Your task to perform on an android device: open wifi settings Image 0: 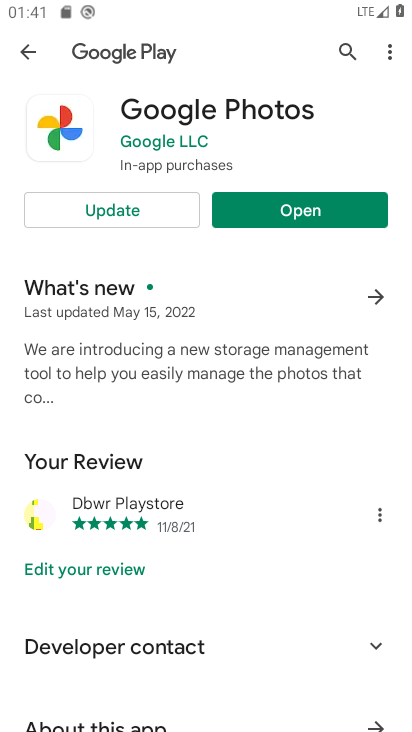
Step 0: press home button
Your task to perform on an android device: open wifi settings Image 1: 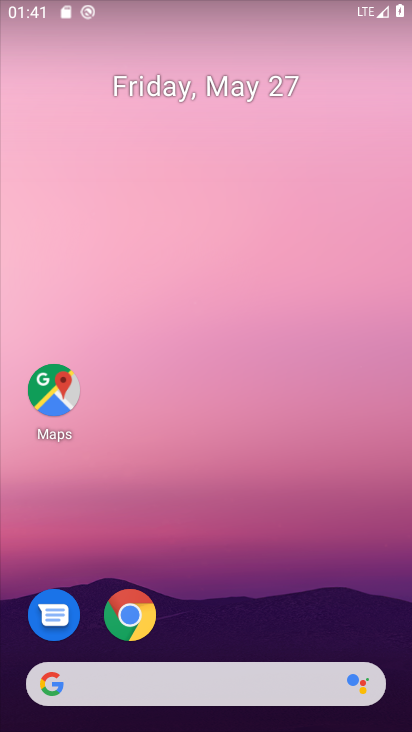
Step 1: drag from (370, 622) to (388, 70)
Your task to perform on an android device: open wifi settings Image 2: 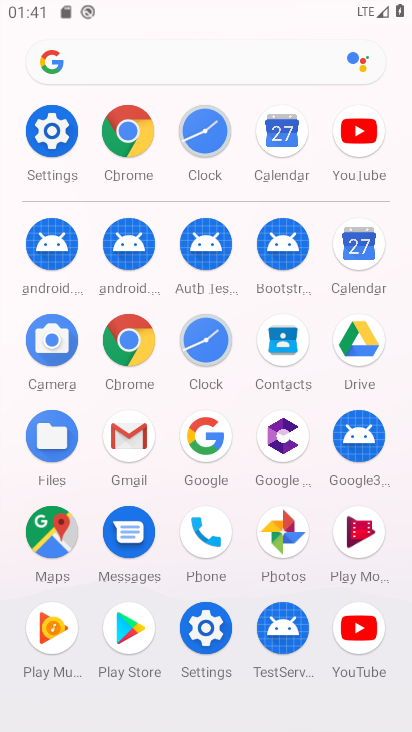
Step 2: click (219, 623)
Your task to perform on an android device: open wifi settings Image 3: 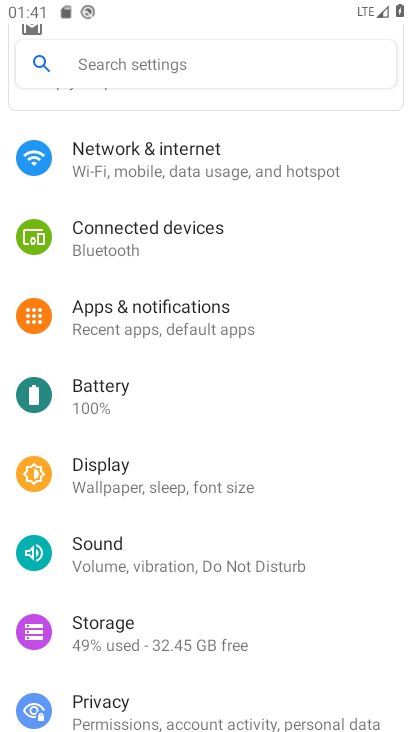
Step 3: drag from (363, 557) to (359, 475)
Your task to perform on an android device: open wifi settings Image 4: 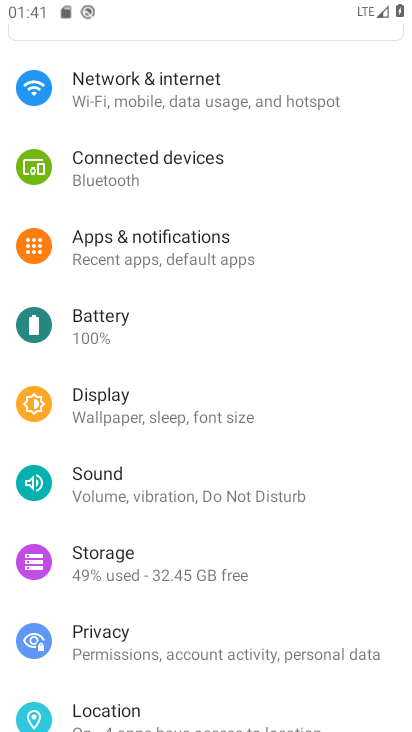
Step 4: drag from (358, 609) to (362, 527)
Your task to perform on an android device: open wifi settings Image 5: 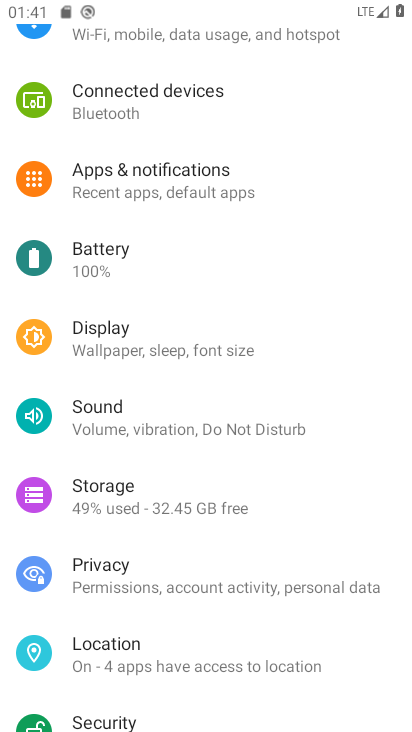
Step 5: drag from (357, 646) to (366, 522)
Your task to perform on an android device: open wifi settings Image 6: 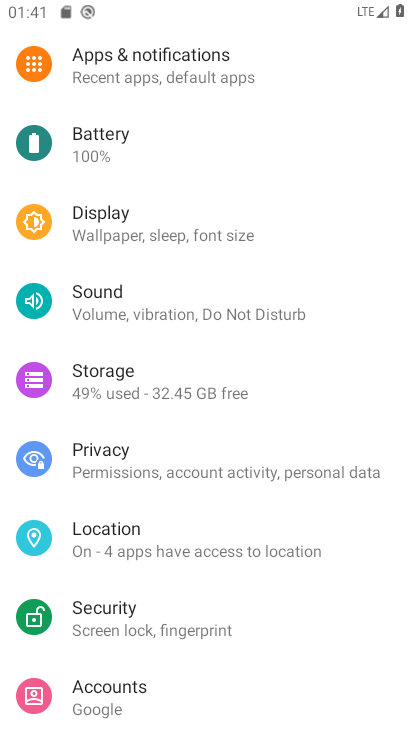
Step 6: drag from (360, 647) to (371, 538)
Your task to perform on an android device: open wifi settings Image 7: 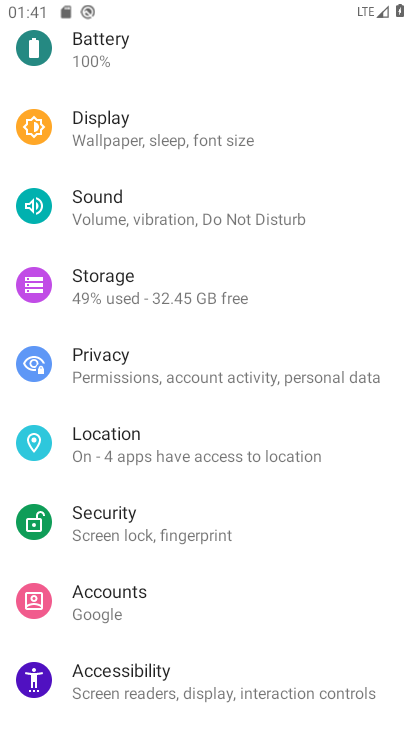
Step 7: drag from (352, 639) to (352, 544)
Your task to perform on an android device: open wifi settings Image 8: 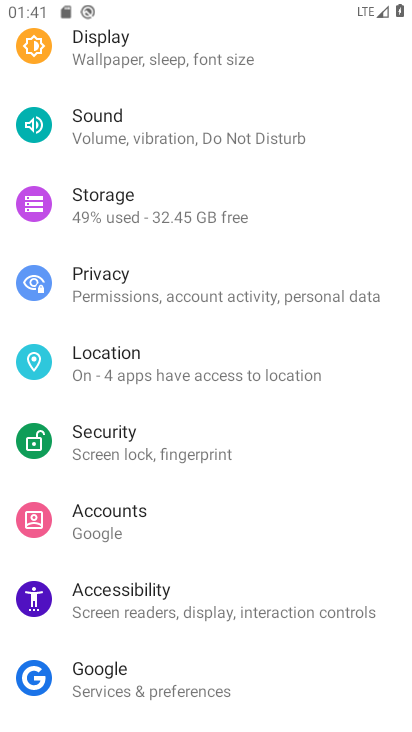
Step 8: drag from (352, 659) to (354, 554)
Your task to perform on an android device: open wifi settings Image 9: 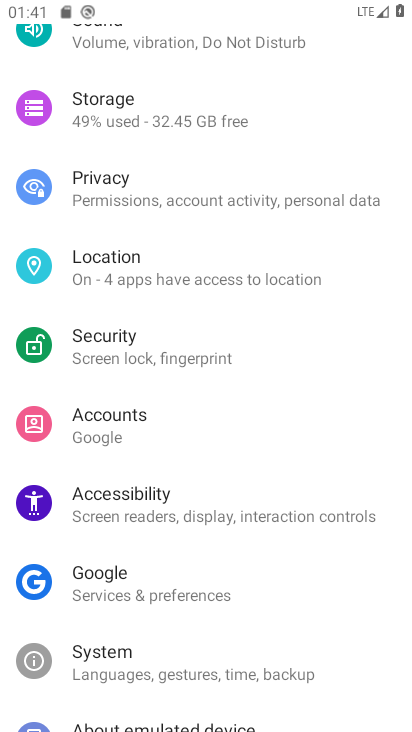
Step 9: drag from (359, 657) to (366, 517)
Your task to perform on an android device: open wifi settings Image 10: 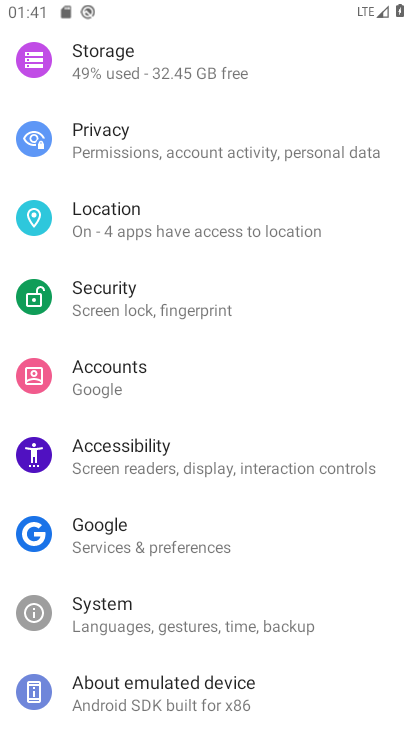
Step 10: drag from (366, 501) to (368, 594)
Your task to perform on an android device: open wifi settings Image 11: 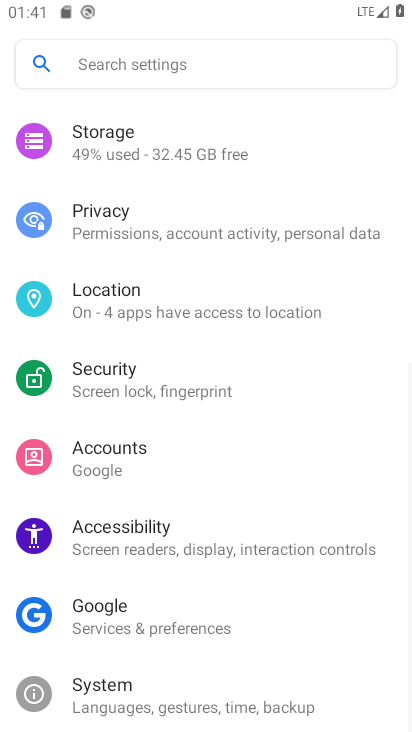
Step 11: drag from (364, 415) to (363, 522)
Your task to perform on an android device: open wifi settings Image 12: 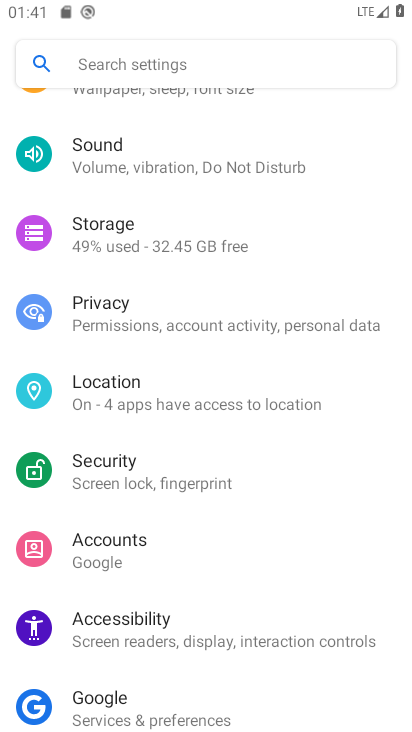
Step 12: drag from (362, 407) to (375, 502)
Your task to perform on an android device: open wifi settings Image 13: 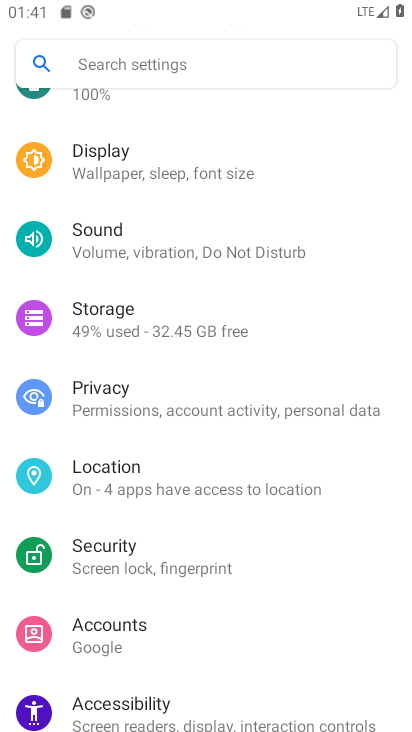
Step 13: drag from (375, 371) to (378, 467)
Your task to perform on an android device: open wifi settings Image 14: 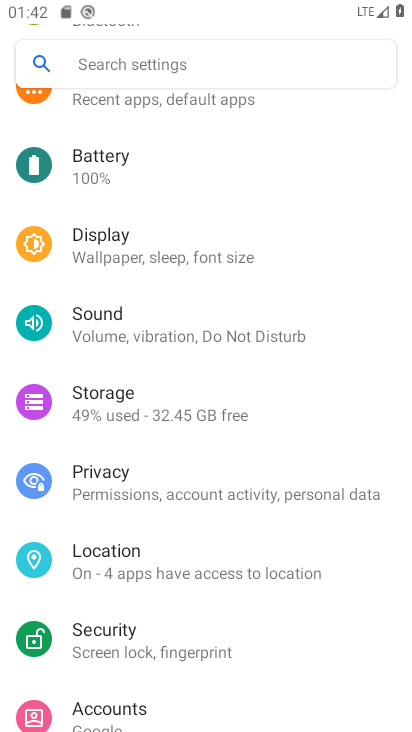
Step 14: drag from (371, 341) to (368, 446)
Your task to perform on an android device: open wifi settings Image 15: 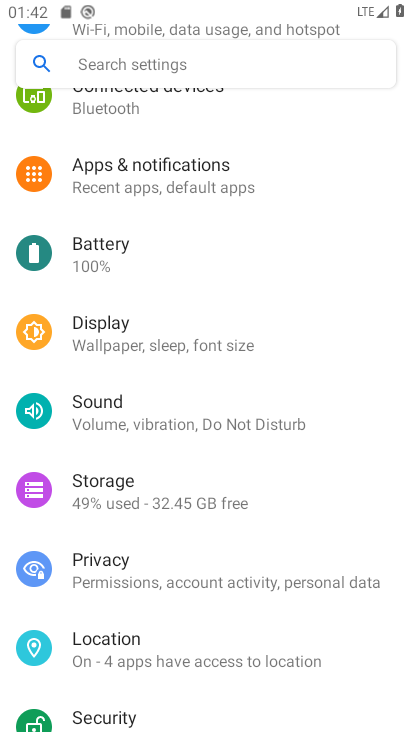
Step 15: drag from (355, 355) to (364, 430)
Your task to perform on an android device: open wifi settings Image 16: 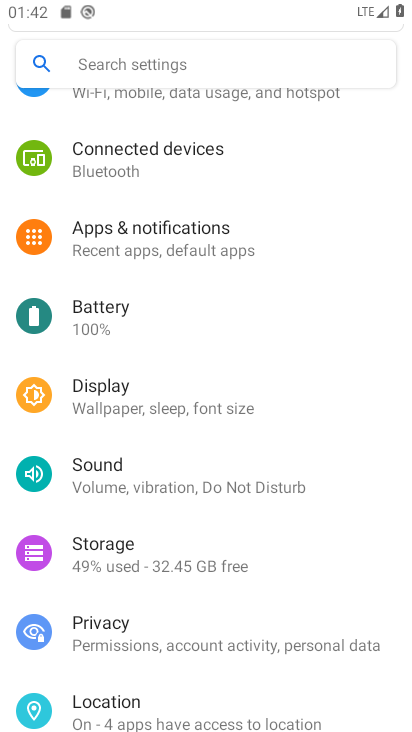
Step 16: drag from (363, 313) to (368, 462)
Your task to perform on an android device: open wifi settings Image 17: 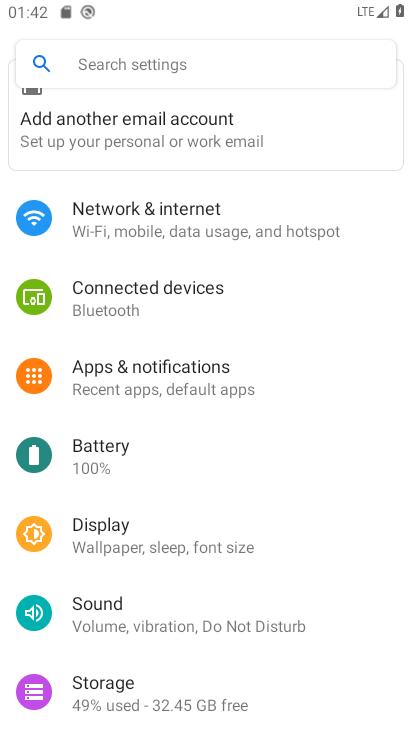
Step 17: drag from (347, 292) to (357, 429)
Your task to perform on an android device: open wifi settings Image 18: 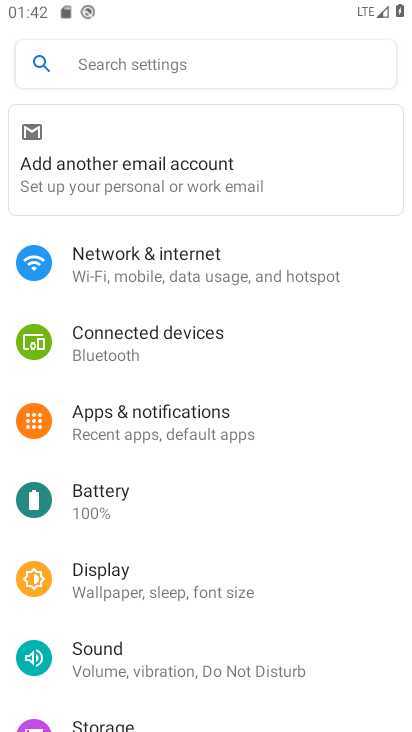
Step 18: click (319, 267)
Your task to perform on an android device: open wifi settings Image 19: 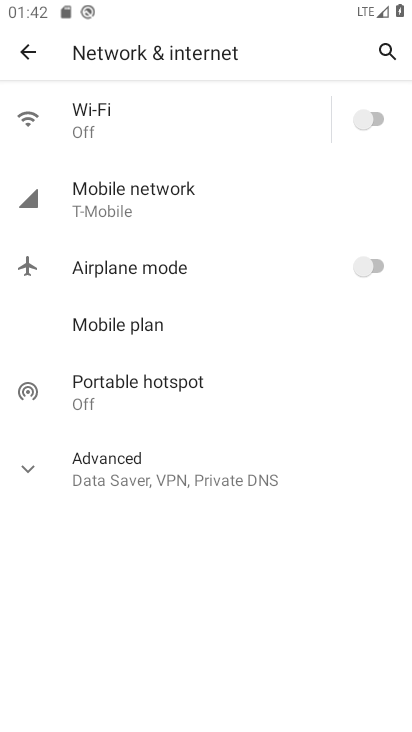
Step 19: click (124, 135)
Your task to perform on an android device: open wifi settings Image 20: 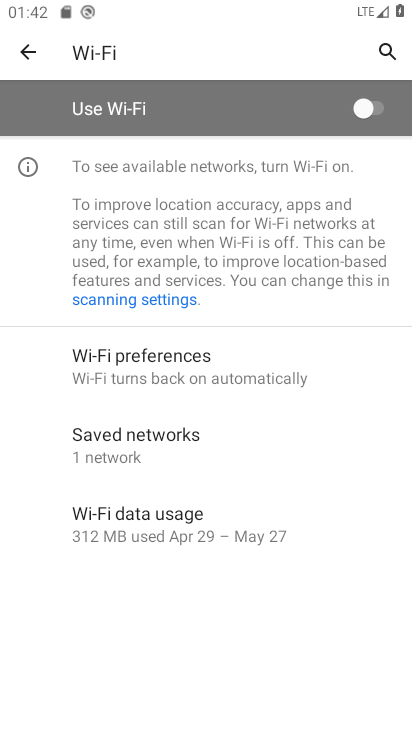
Step 20: task complete